Your task to perform on an android device: open the mobile data screen to see how much data has been used Image 0: 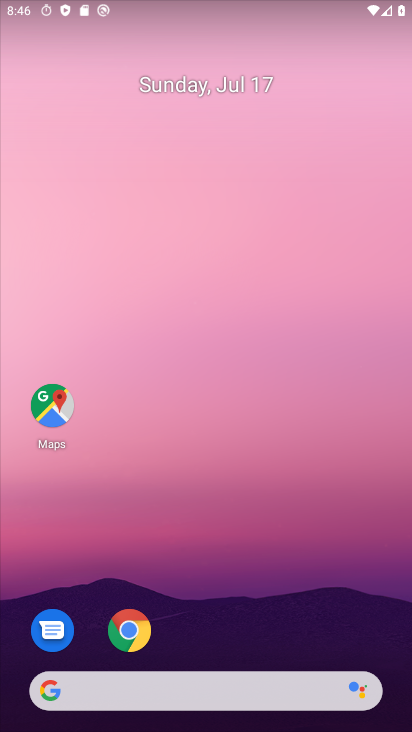
Step 0: drag from (155, 384) to (316, 19)
Your task to perform on an android device: open the mobile data screen to see how much data has been used Image 1: 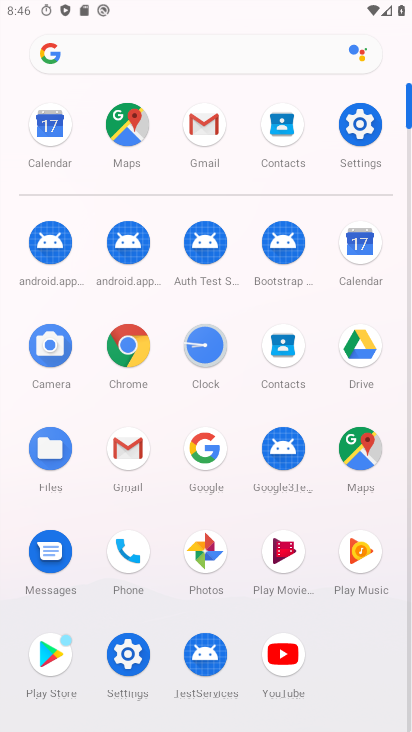
Step 1: click (134, 645)
Your task to perform on an android device: open the mobile data screen to see how much data has been used Image 2: 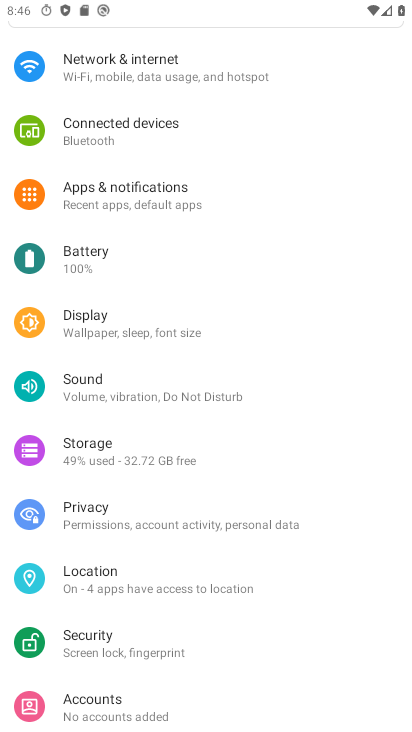
Step 2: click (129, 73)
Your task to perform on an android device: open the mobile data screen to see how much data has been used Image 3: 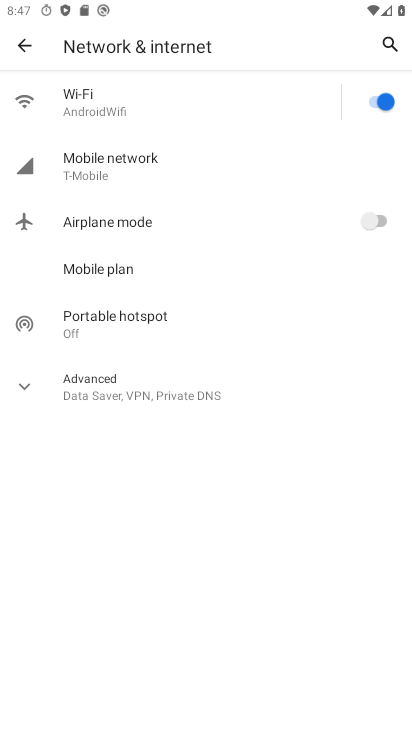
Step 3: click (80, 171)
Your task to perform on an android device: open the mobile data screen to see how much data has been used Image 4: 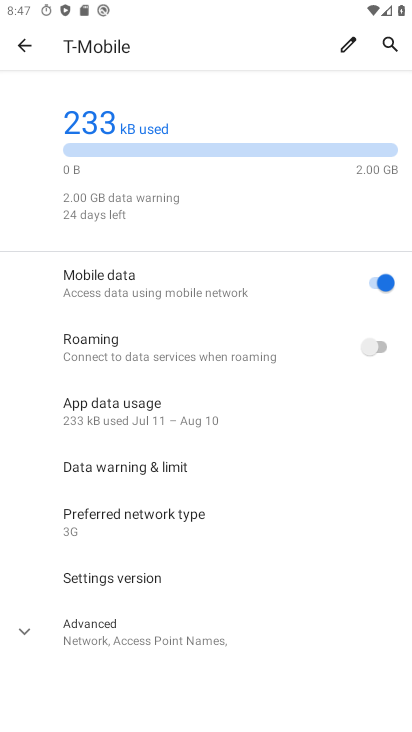
Step 4: task complete